Your task to perform on an android device: change the upload size in google photos Image 0: 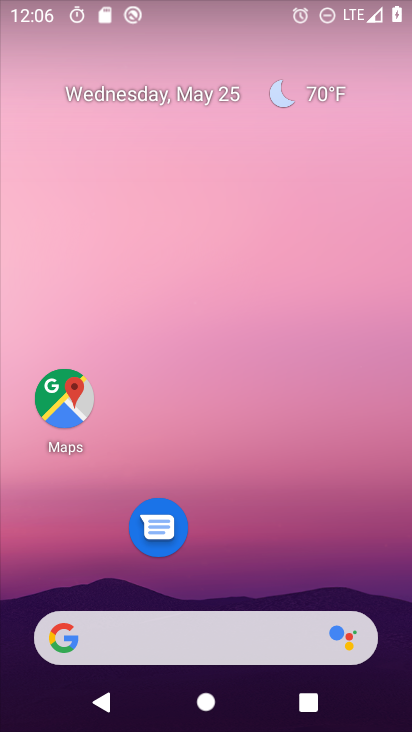
Step 0: drag from (260, 569) to (264, 151)
Your task to perform on an android device: change the upload size in google photos Image 1: 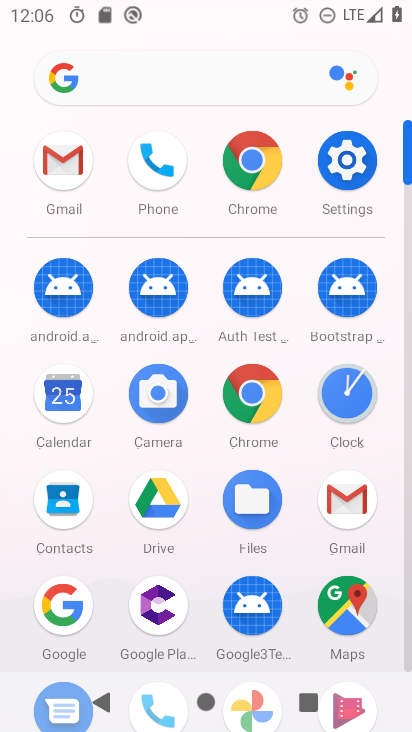
Step 1: drag from (203, 566) to (198, 306)
Your task to perform on an android device: change the upload size in google photos Image 2: 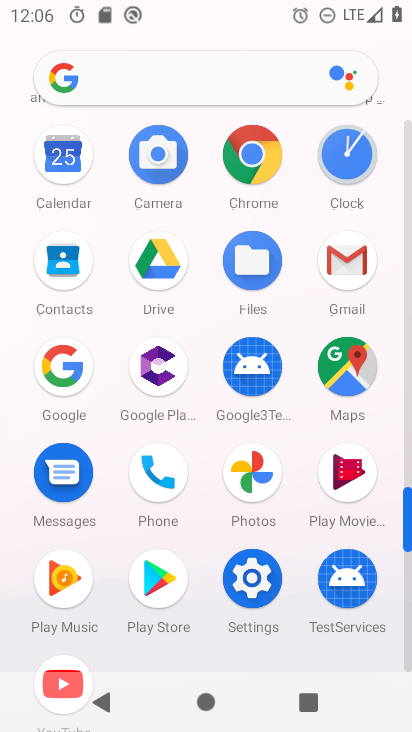
Step 2: click (261, 480)
Your task to perform on an android device: change the upload size in google photos Image 3: 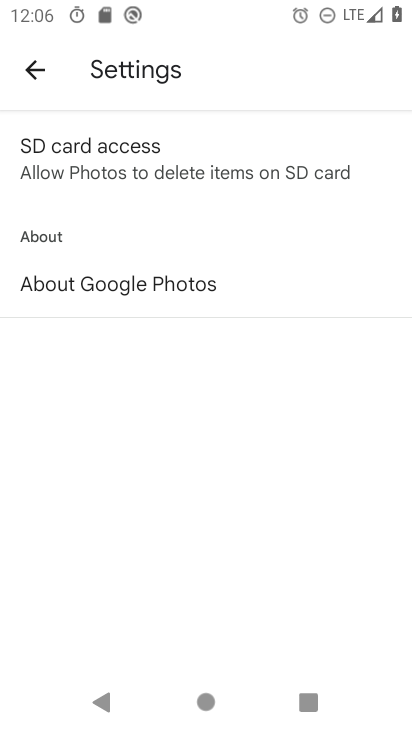
Step 3: press back button
Your task to perform on an android device: change the upload size in google photos Image 4: 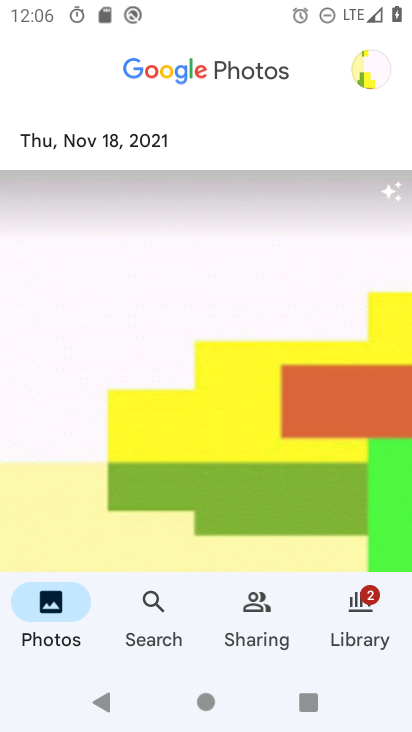
Step 4: click (359, 61)
Your task to perform on an android device: change the upload size in google photos Image 5: 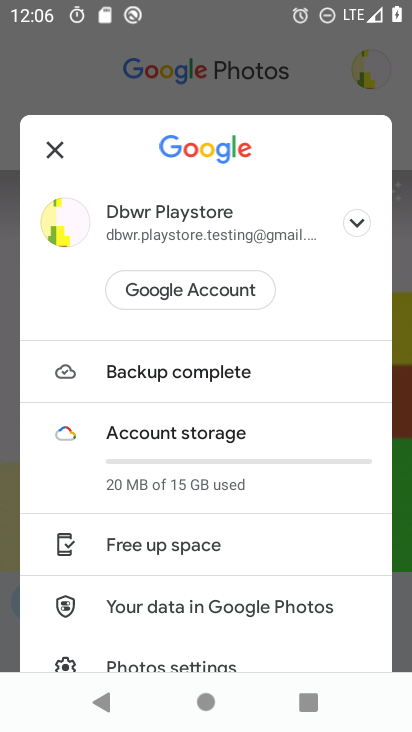
Step 5: drag from (220, 580) to (219, 429)
Your task to perform on an android device: change the upload size in google photos Image 6: 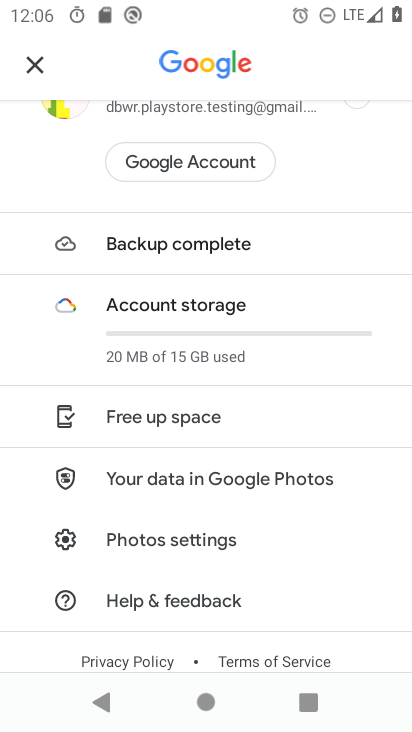
Step 6: click (224, 539)
Your task to perform on an android device: change the upload size in google photos Image 7: 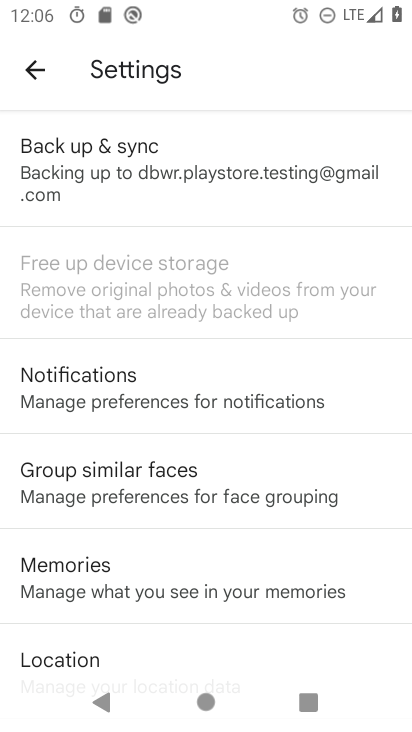
Step 7: click (137, 178)
Your task to perform on an android device: change the upload size in google photos Image 8: 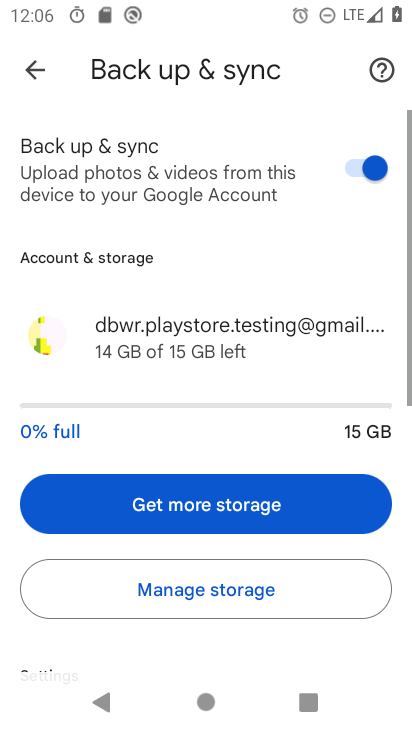
Step 8: drag from (220, 571) to (218, 165)
Your task to perform on an android device: change the upload size in google photos Image 9: 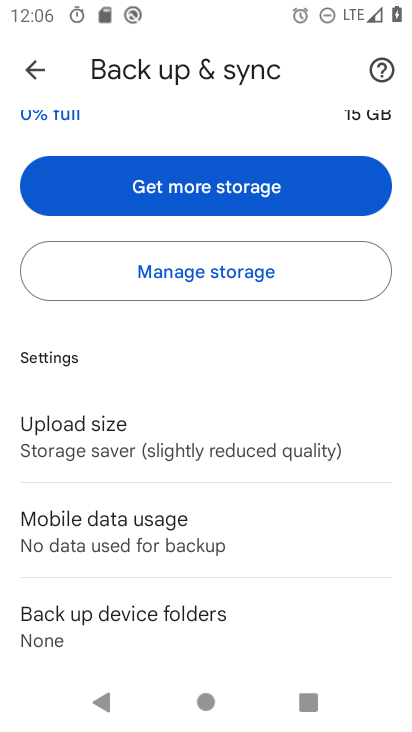
Step 9: click (133, 448)
Your task to perform on an android device: change the upload size in google photos Image 10: 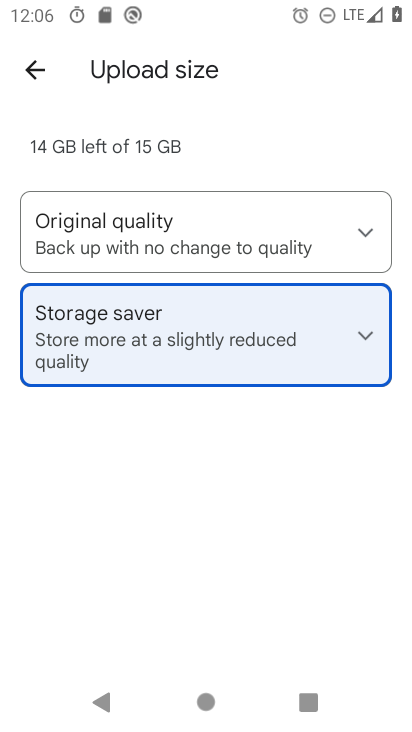
Step 10: click (130, 229)
Your task to perform on an android device: change the upload size in google photos Image 11: 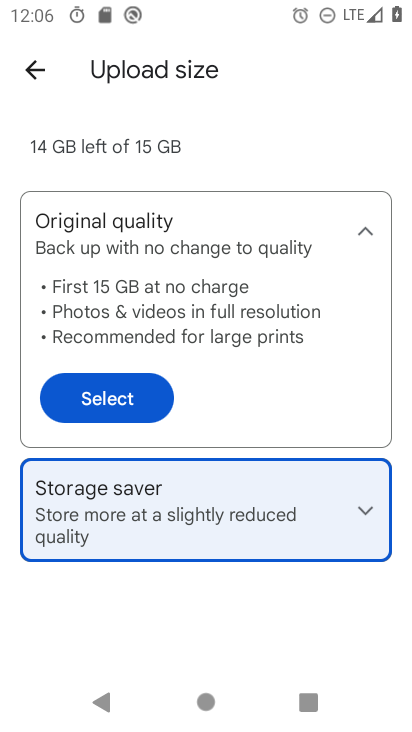
Step 11: click (107, 405)
Your task to perform on an android device: change the upload size in google photos Image 12: 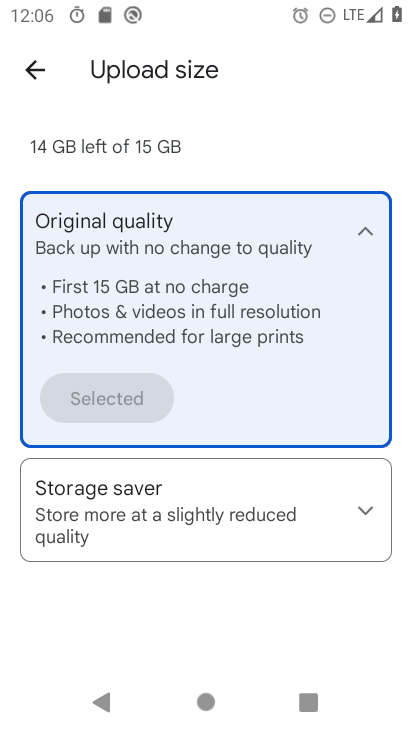
Step 12: task complete